Your task to perform on an android device: set default search engine in the chrome app Image 0: 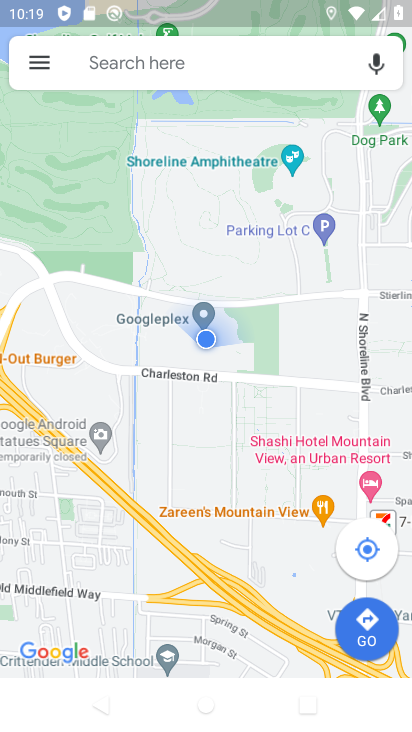
Step 0: press home button
Your task to perform on an android device: set default search engine in the chrome app Image 1: 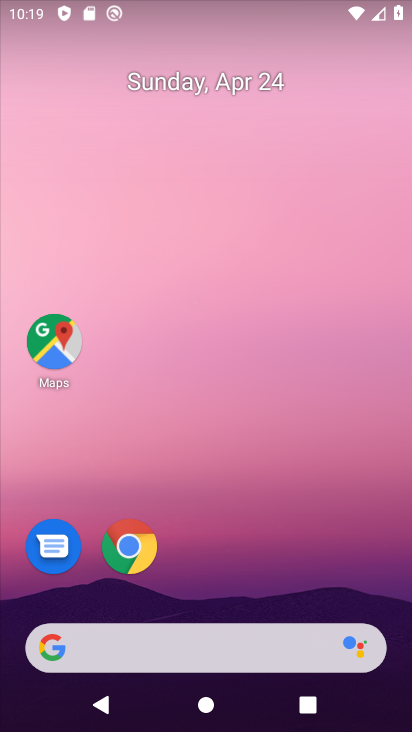
Step 1: click (131, 550)
Your task to perform on an android device: set default search engine in the chrome app Image 2: 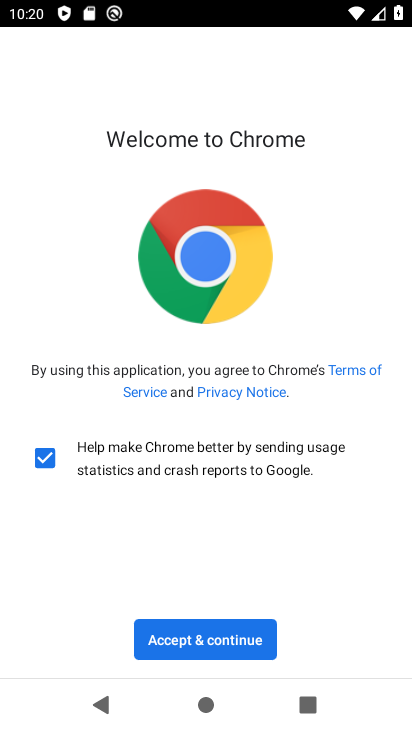
Step 2: click (183, 641)
Your task to perform on an android device: set default search engine in the chrome app Image 3: 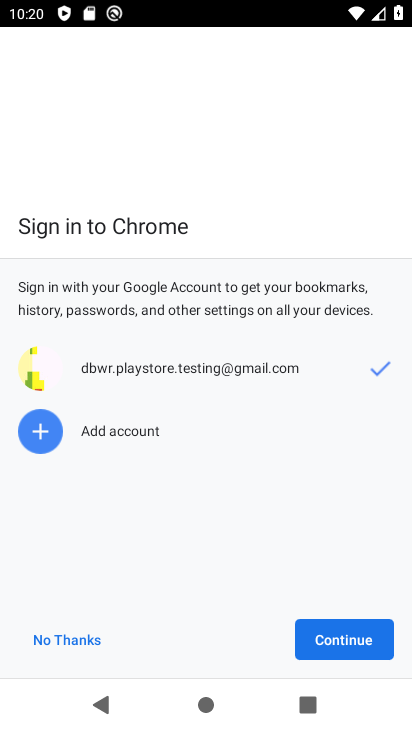
Step 3: click (75, 643)
Your task to perform on an android device: set default search engine in the chrome app Image 4: 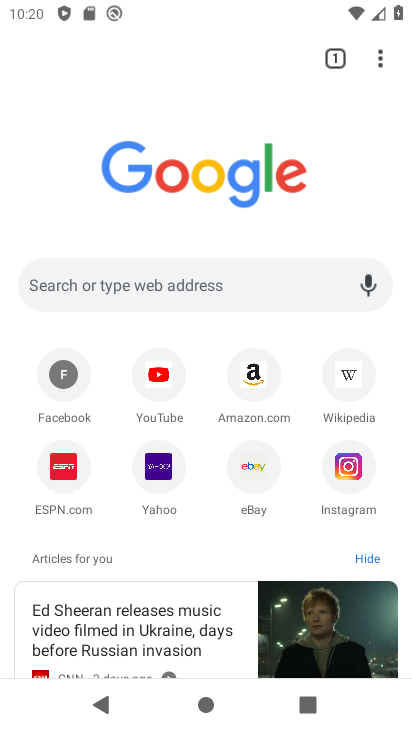
Step 4: drag from (379, 58) to (173, 494)
Your task to perform on an android device: set default search engine in the chrome app Image 5: 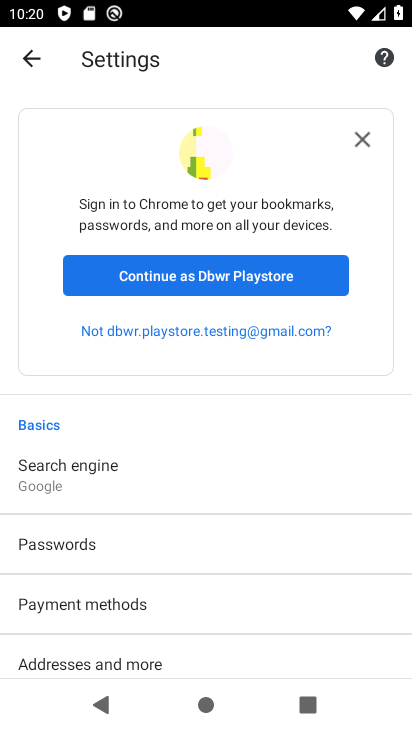
Step 5: click (53, 471)
Your task to perform on an android device: set default search engine in the chrome app Image 6: 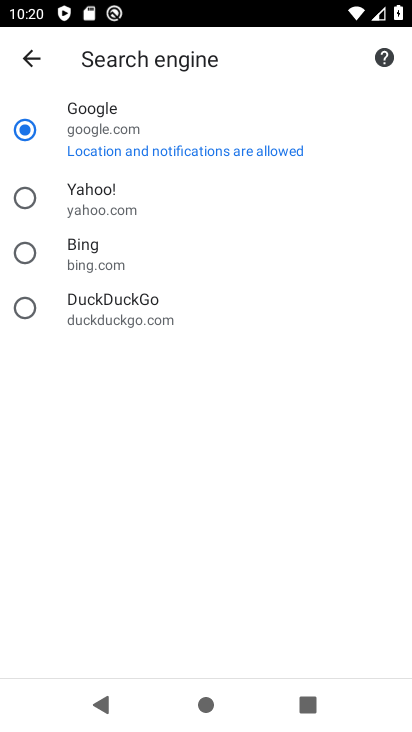
Step 6: click (27, 200)
Your task to perform on an android device: set default search engine in the chrome app Image 7: 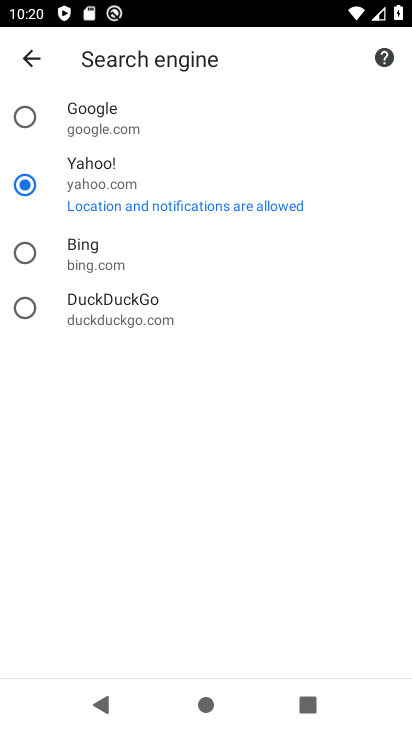
Step 7: task complete